Your task to perform on an android device: Go to Amazon Image 0: 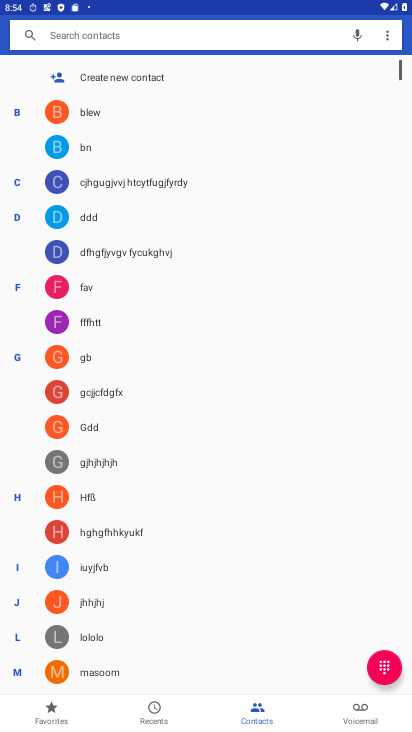
Step 0: press home button
Your task to perform on an android device: Go to Amazon Image 1: 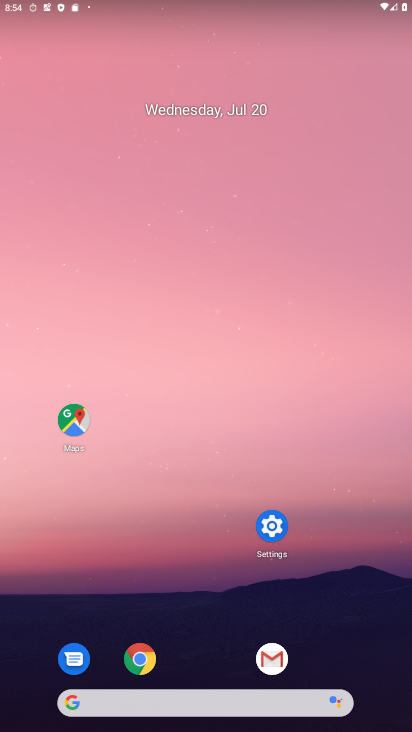
Step 1: click (131, 656)
Your task to perform on an android device: Go to Amazon Image 2: 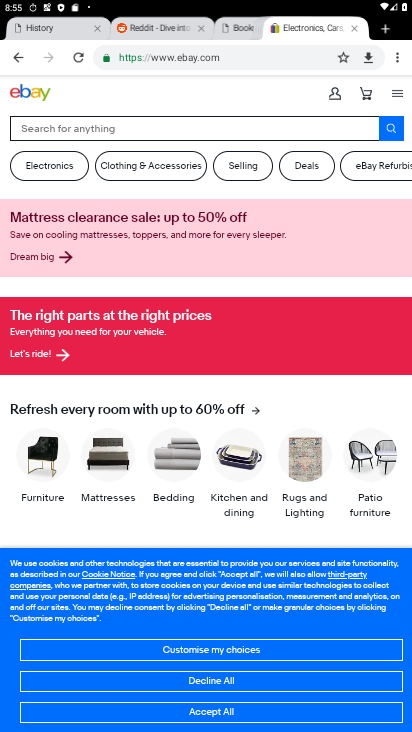
Step 2: click (378, 34)
Your task to perform on an android device: Go to Amazon Image 3: 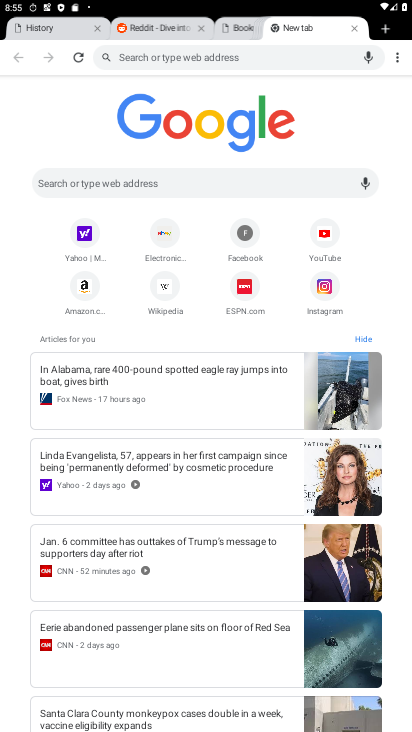
Step 3: click (98, 277)
Your task to perform on an android device: Go to Amazon Image 4: 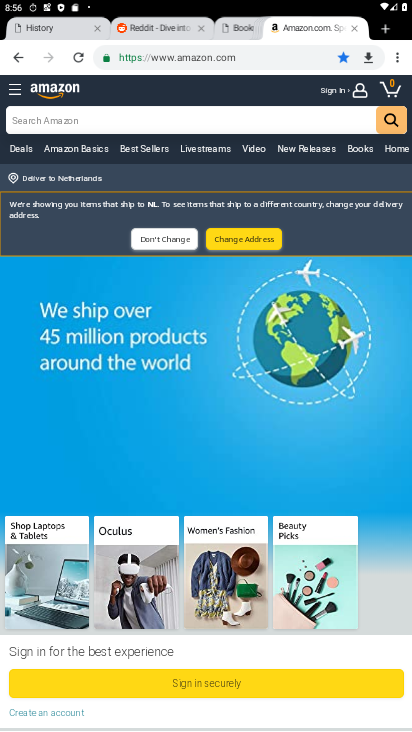
Step 4: task complete